Your task to perform on an android device: add a label to a message in the gmail app Image 0: 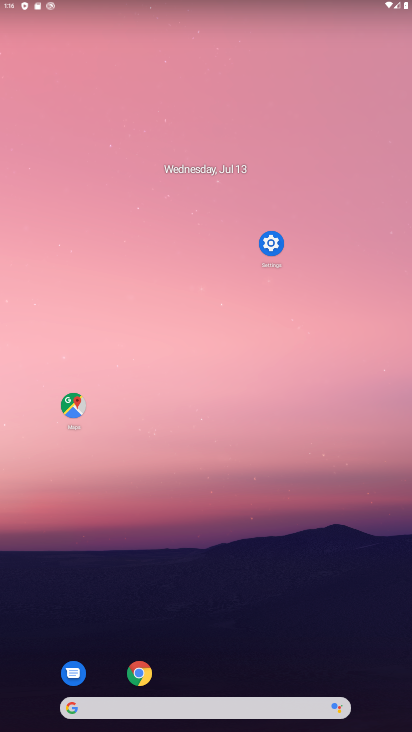
Step 0: drag from (188, 674) to (186, 147)
Your task to perform on an android device: add a label to a message in the gmail app Image 1: 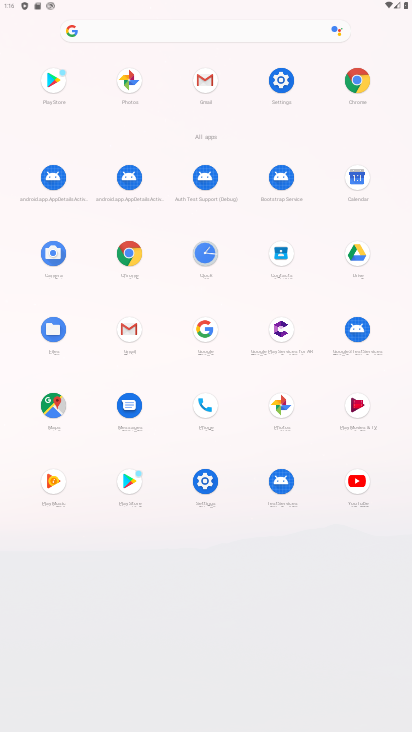
Step 1: click (132, 321)
Your task to perform on an android device: add a label to a message in the gmail app Image 2: 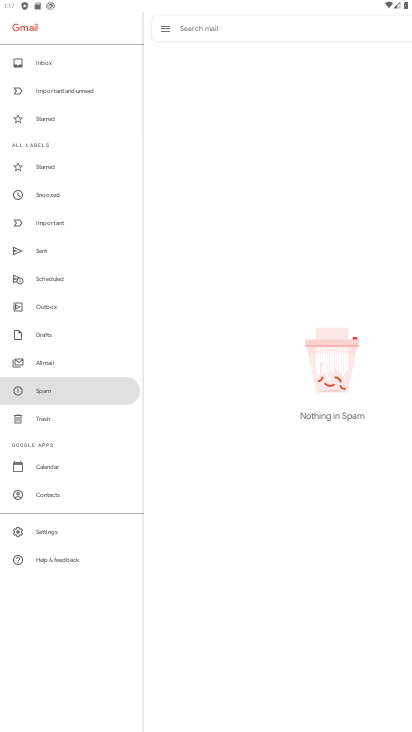
Step 2: task complete